Your task to perform on an android device: set an alarm Image 0: 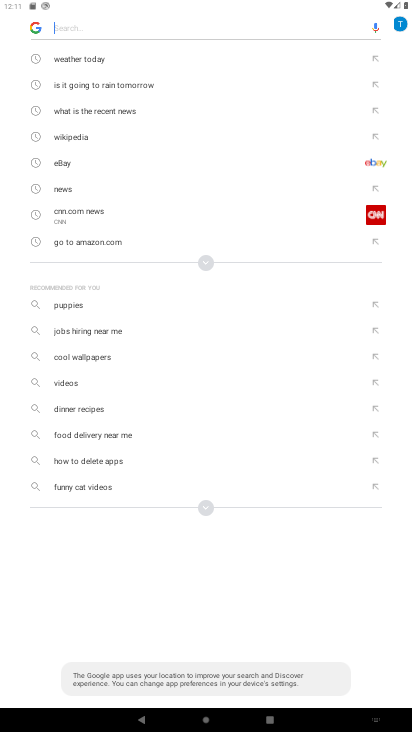
Step 0: press home button
Your task to perform on an android device: set an alarm Image 1: 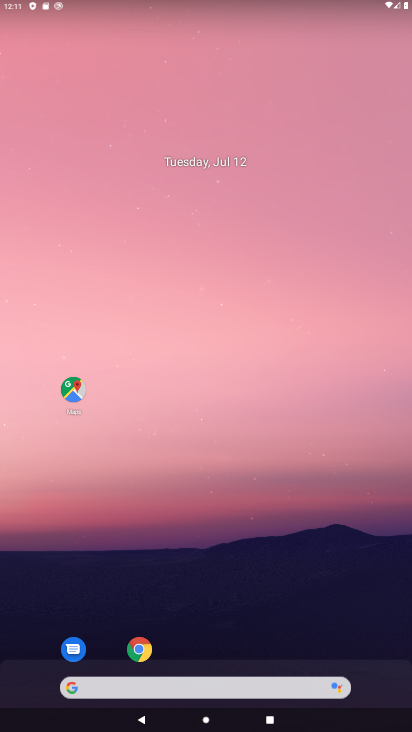
Step 1: drag from (286, 616) to (202, 54)
Your task to perform on an android device: set an alarm Image 2: 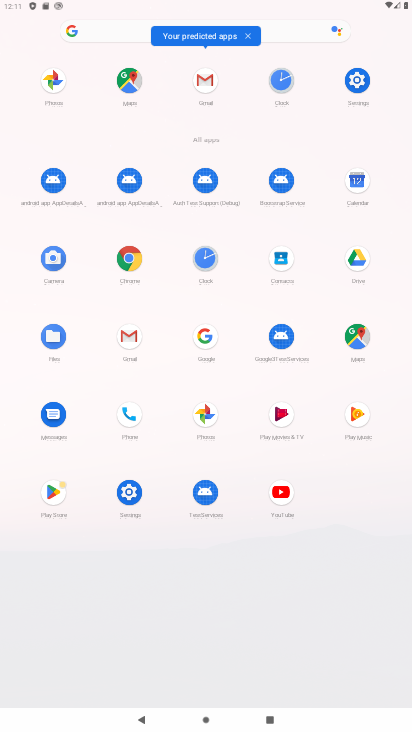
Step 2: click (288, 83)
Your task to perform on an android device: set an alarm Image 3: 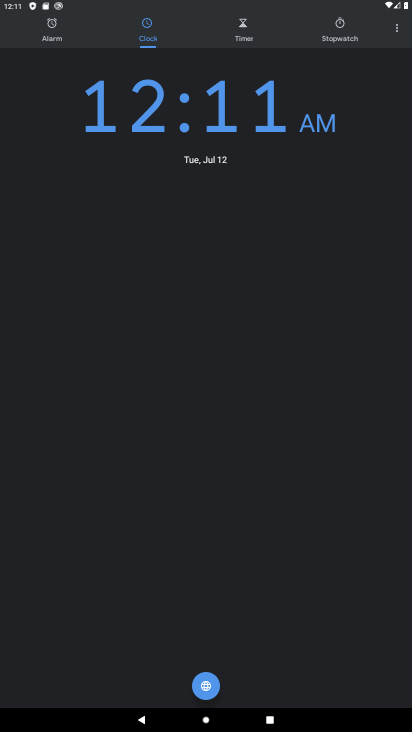
Step 3: click (55, 31)
Your task to perform on an android device: set an alarm Image 4: 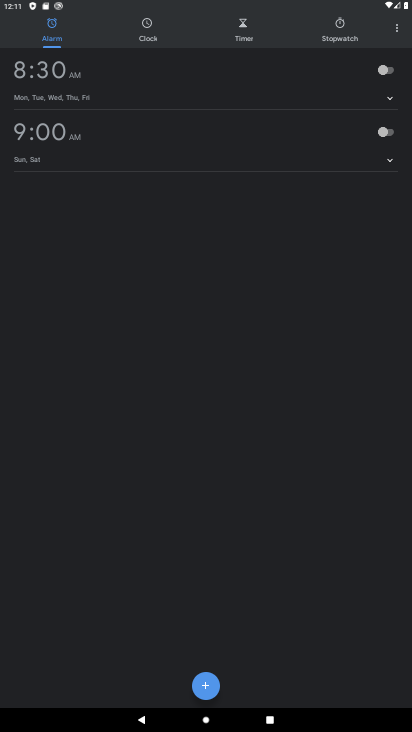
Step 4: click (212, 682)
Your task to perform on an android device: set an alarm Image 5: 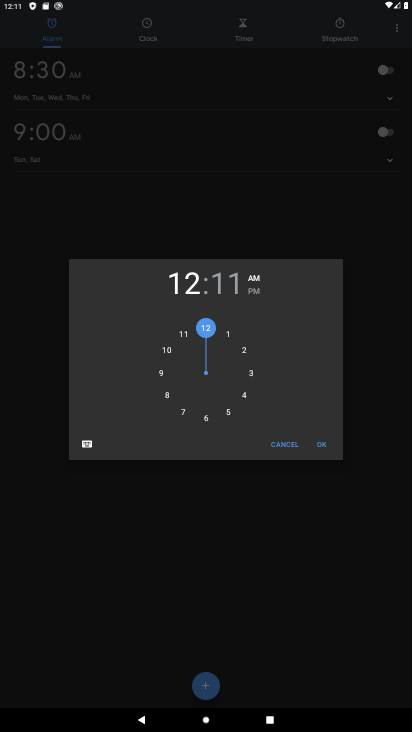
Step 5: click (328, 453)
Your task to perform on an android device: set an alarm Image 6: 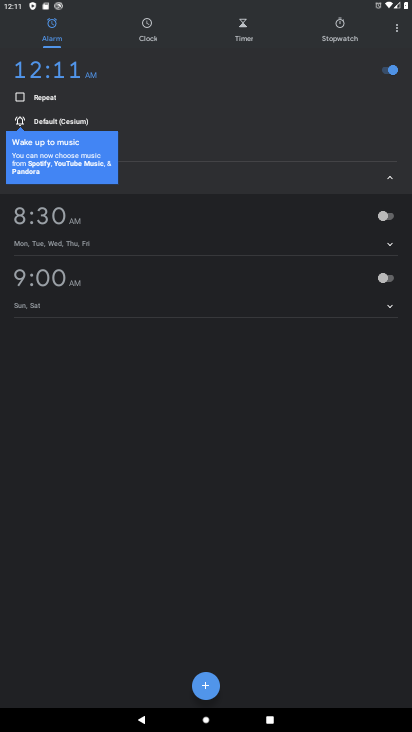
Step 6: task complete